Your task to perform on an android device: Show me productivity apps on the Play Store Image 0: 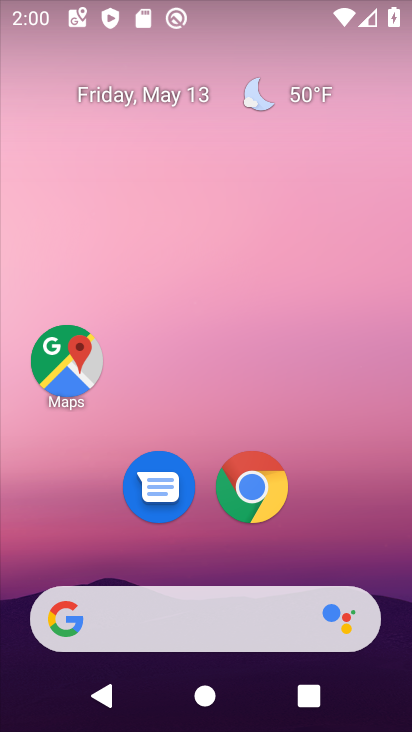
Step 0: drag from (93, 589) to (253, 170)
Your task to perform on an android device: Show me productivity apps on the Play Store Image 1: 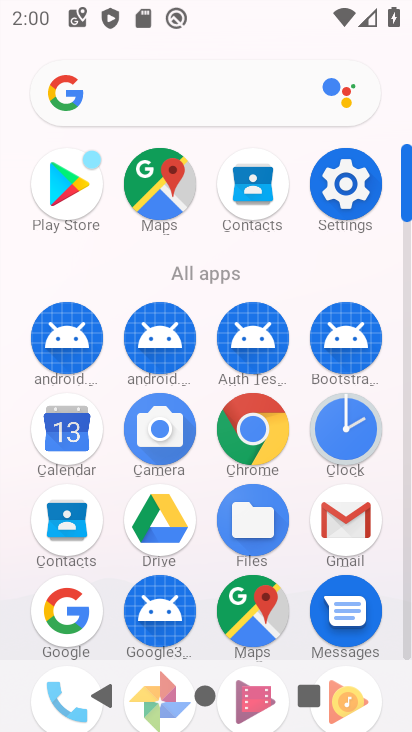
Step 1: drag from (183, 532) to (277, 277)
Your task to perform on an android device: Show me productivity apps on the Play Store Image 2: 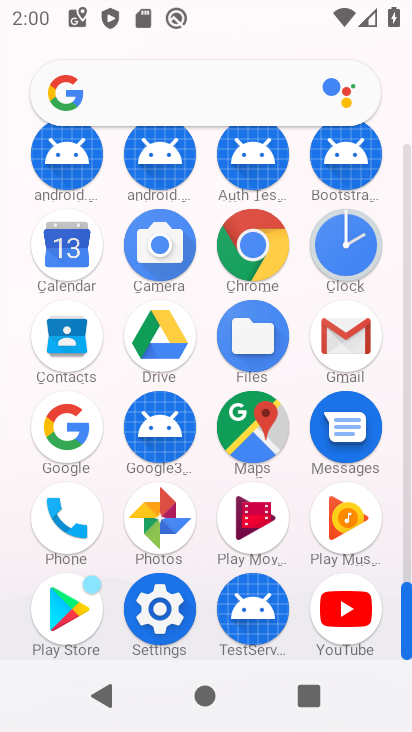
Step 2: click (70, 619)
Your task to perform on an android device: Show me productivity apps on the Play Store Image 3: 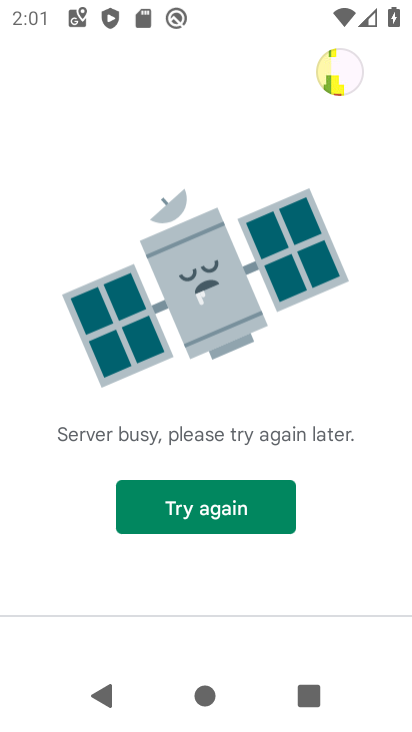
Step 3: task complete